Your task to perform on an android device: all mails in gmail Image 0: 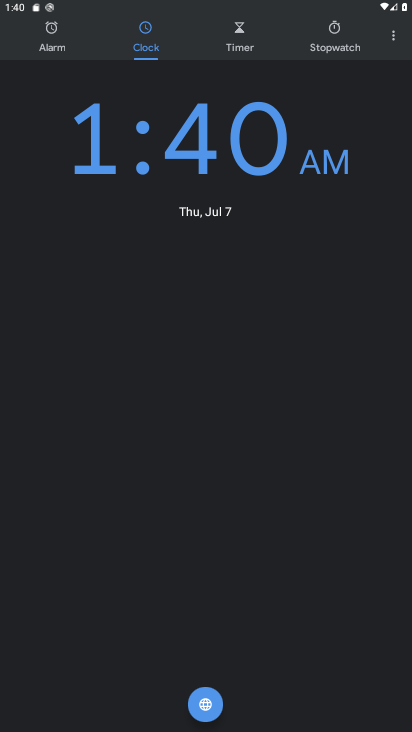
Step 0: press home button
Your task to perform on an android device: all mails in gmail Image 1: 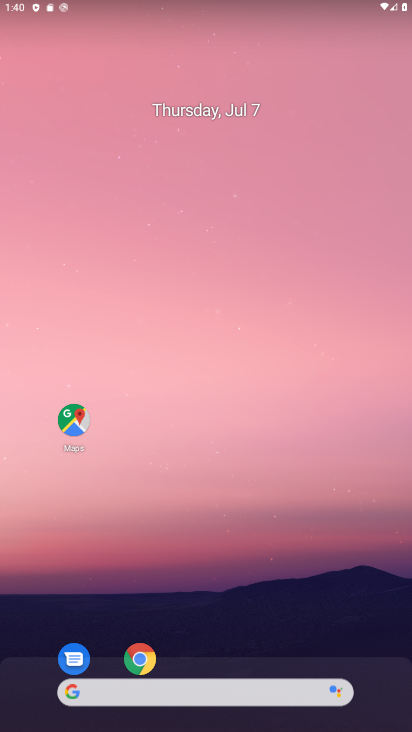
Step 1: drag from (194, 446) to (207, 87)
Your task to perform on an android device: all mails in gmail Image 2: 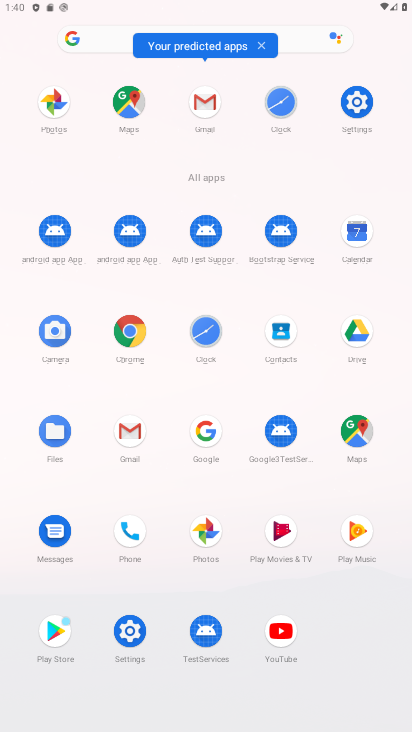
Step 2: click (205, 110)
Your task to perform on an android device: all mails in gmail Image 3: 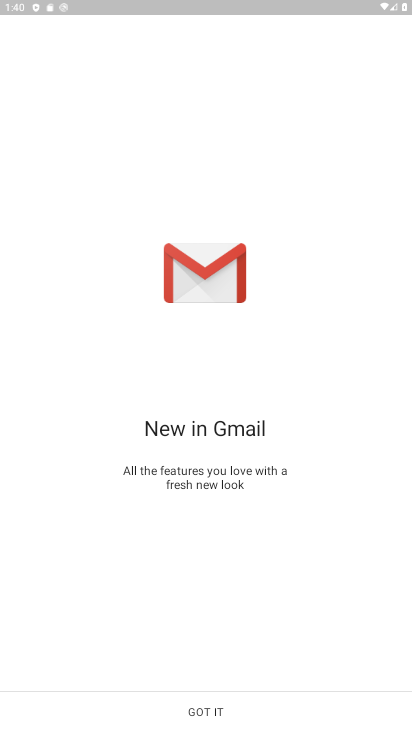
Step 3: click (229, 711)
Your task to perform on an android device: all mails in gmail Image 4: 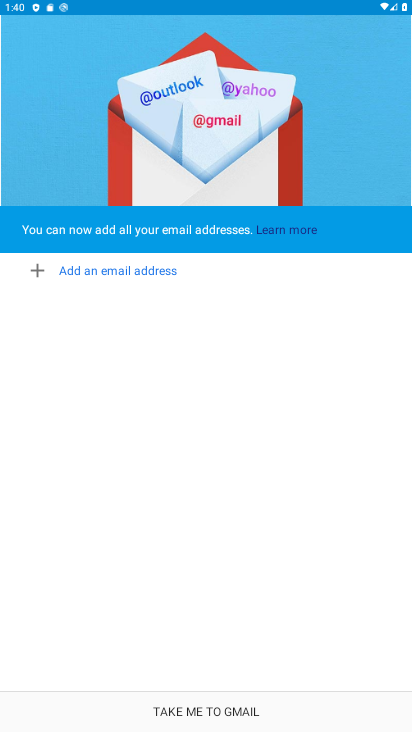
Step 4: click (220, 703)
Your task to perform on an android device: all mails in gmail Image 5: 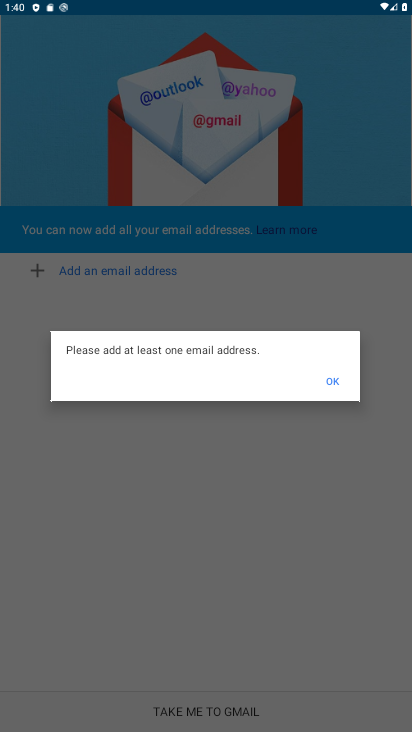
Step 5: task complete